Your task to perform on an android device: Open accessibility settings Image 0: 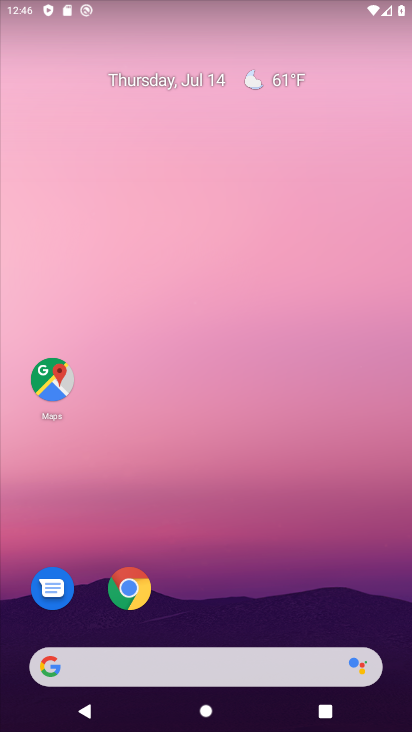
Step 0: drag from (181, 551) to (196, 233)
Your task to perform on an android device: Open accessibility settings Image 1: 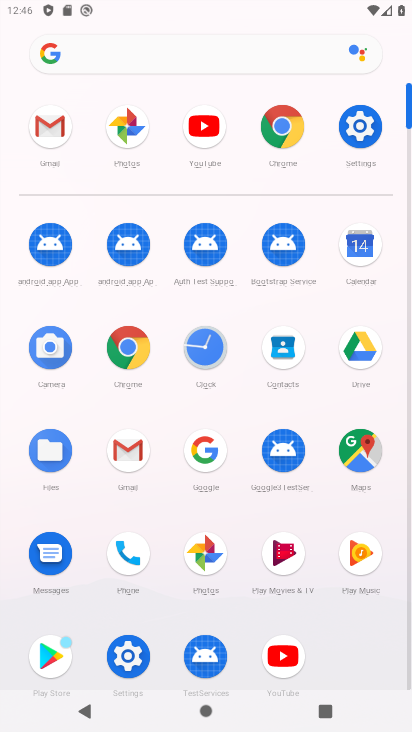
Step 1: click (359, 117)
Your task to perform on an android device: Open accessibility settings Image 2: 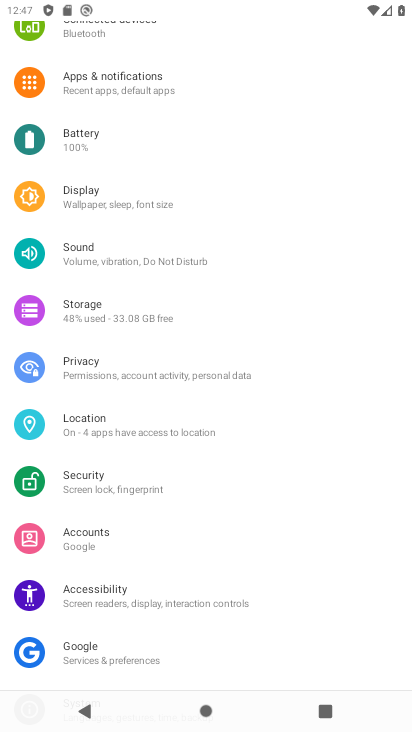
Step 2: click (101, 597)
Your task to perform on an android device: Open accessibility settings Image 3: 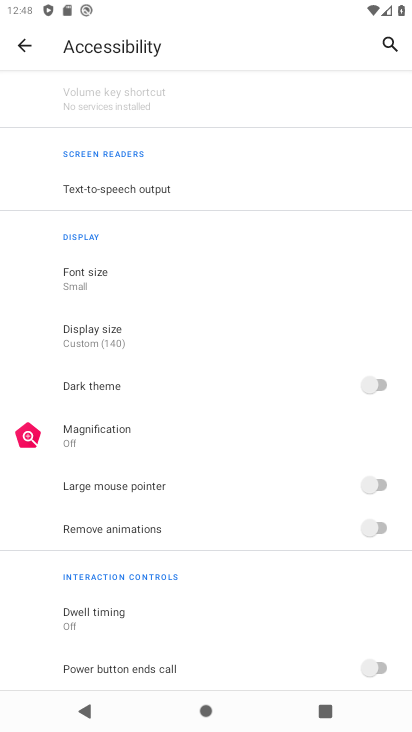
Step 3: task complete